Your task to perform on an android device: What is the news today? Image 0: 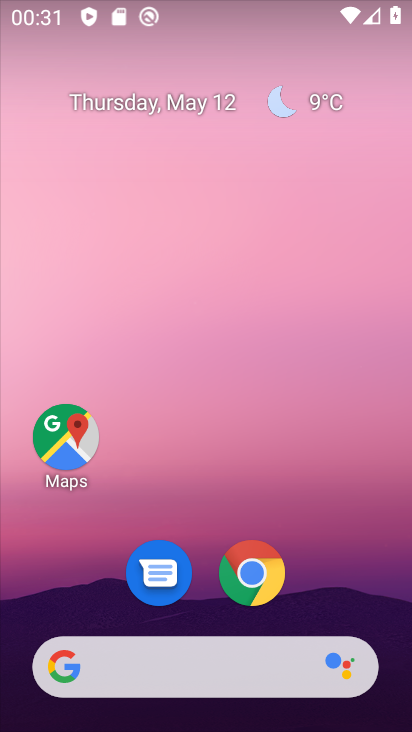
Step 0: drag from (201, 616) to (297, 45)
Your task to perform on an android device: What is the news today? Image 1: 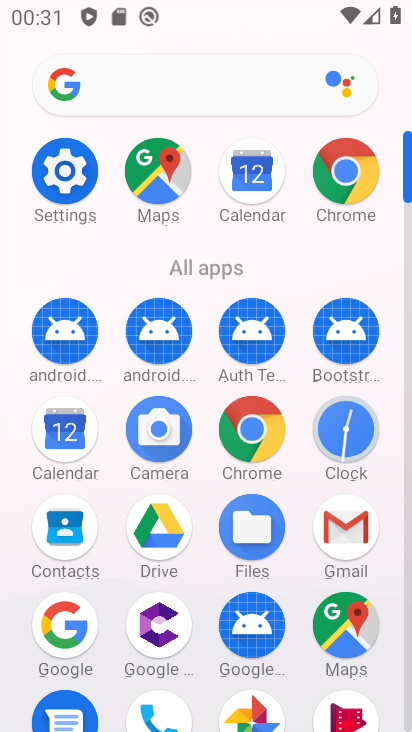
Step 1: click (208, 79)
Your task to perform on an android device: What is the news today? Image 2: 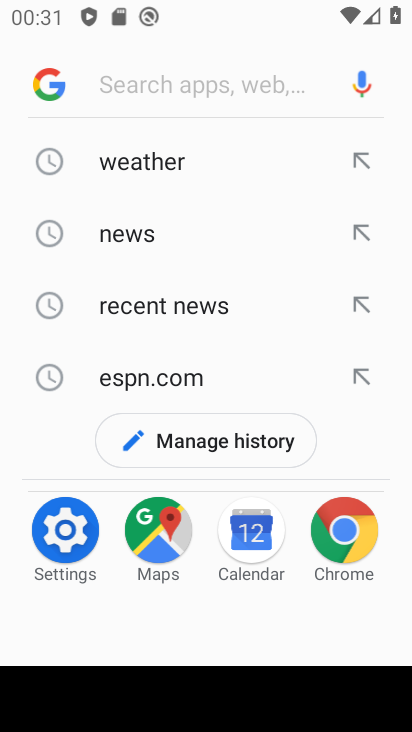
Step 2: type "news today"
Your task to perform on an android device: What is the news today? Image 3: 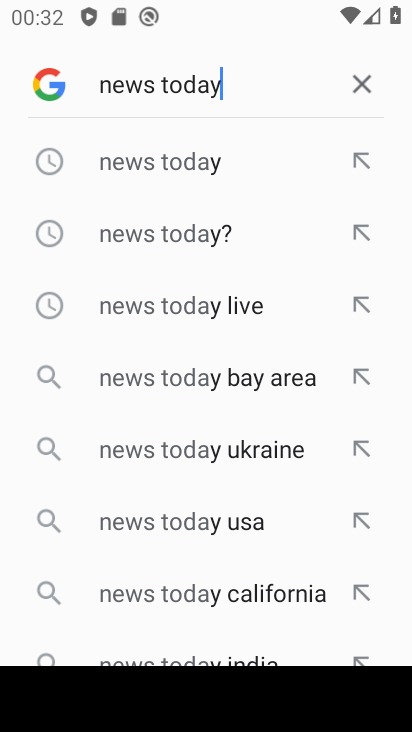
Step 3: click (211, 223)
Your task to perform on an android device: What is the news today? Image 4: 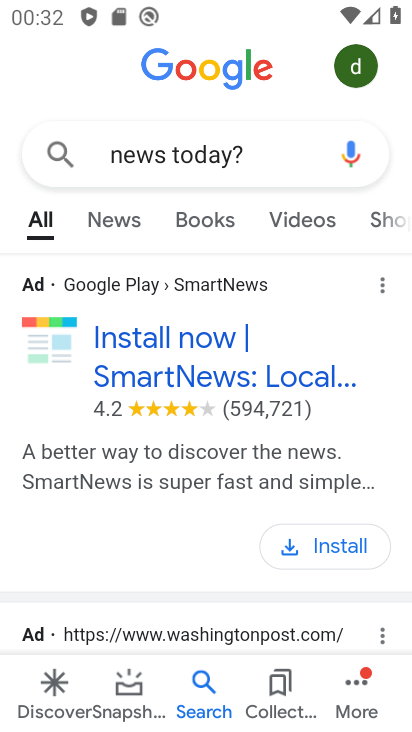
Step 4: task complete